Your task to perform on an android device: Is it going to rain tomorrow? Image 0: 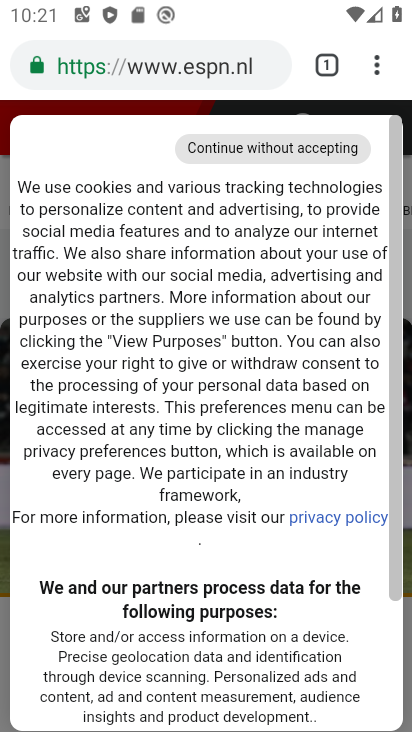
Step 0: press home button
Your task to perform on an android device: Is it going to rain tomorrow? Image 1: 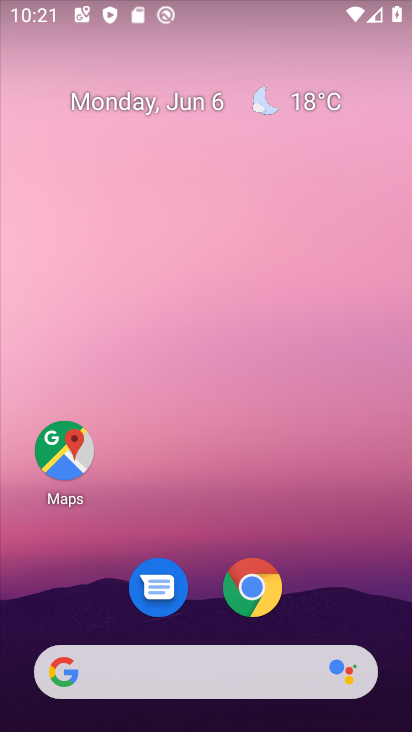
Step 1: click (116, 662)
Your task to perform on an android device: Is it going to rain tomorrow? Image 2: 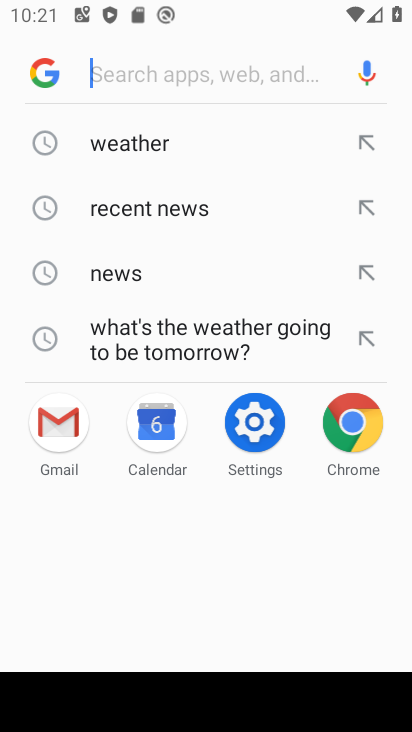
Step 2: click (116, 662)
Your task to perform on an android device: Is it going to rain tomorrow? Image 3: 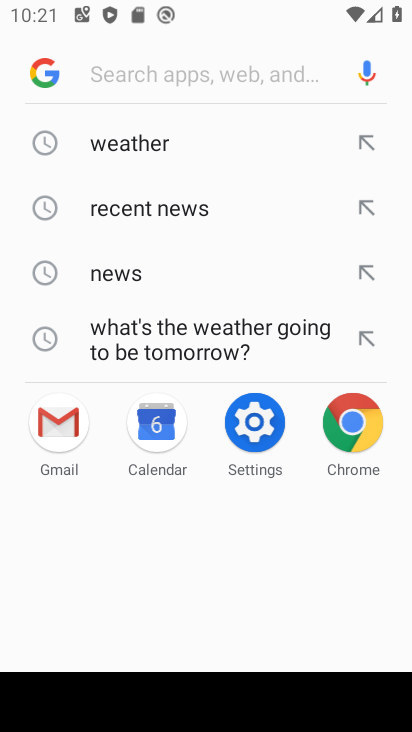
Step 3: click (148, 150)
Your task to perform on an android device: Is it going to rain tomorrow? Image 4: 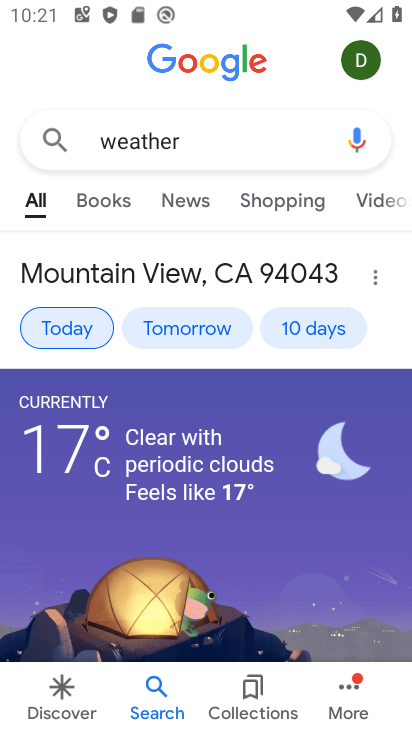
Step 4: click (180, 324)
Your task to perform on an android device: Is it going to rain tomorrow? Image 5: 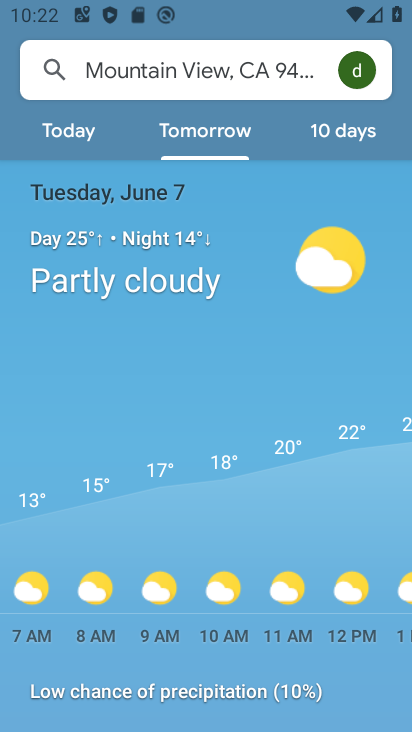
Step 5: task complete